Your task to perform on an android device: add a label to a message in the gmail app Image 0: 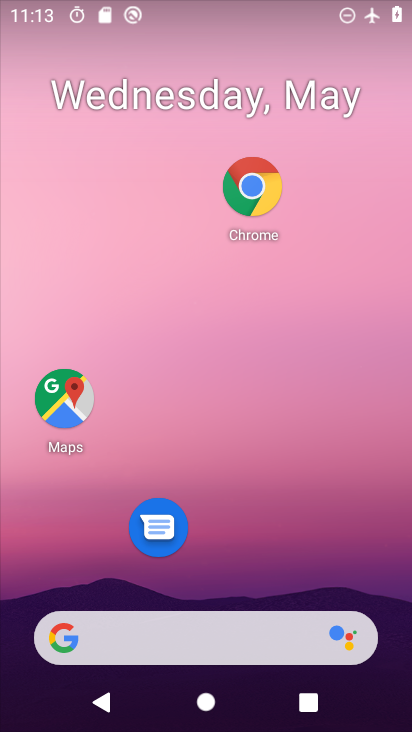
Step 0: drag from (283, 617) to (311, 221)
Your task to perform on an android device: add a label to a message in the gmail app Image 1: 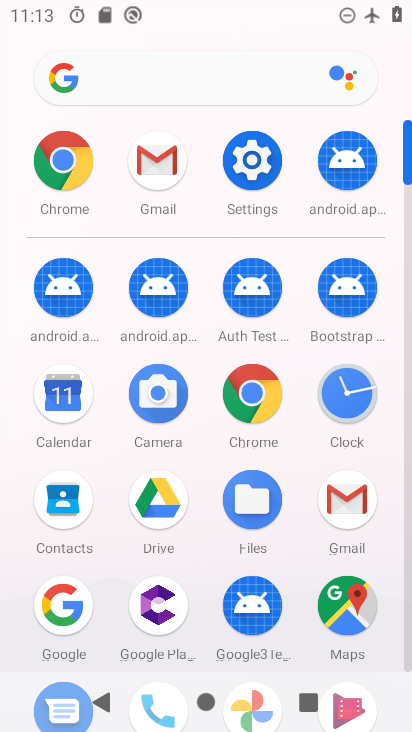
Step 1: click (354, 490)
Your task to perform on an android device: add a label to a message in the gmail app Image 2: 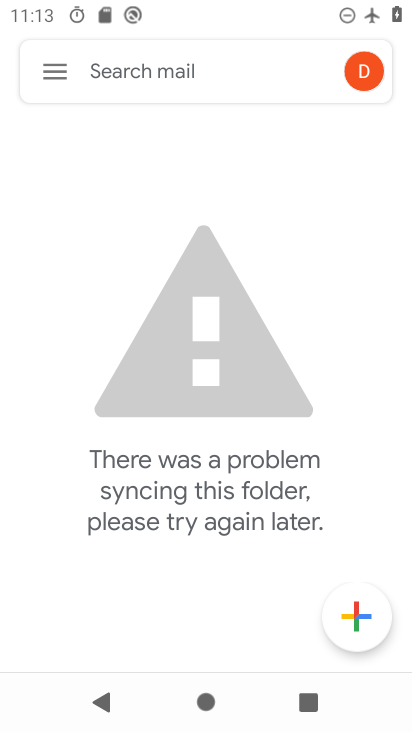
Step 2: click (57, 82)
Your task to perform on an android device: add a label to a message in the gmail app Image 3: 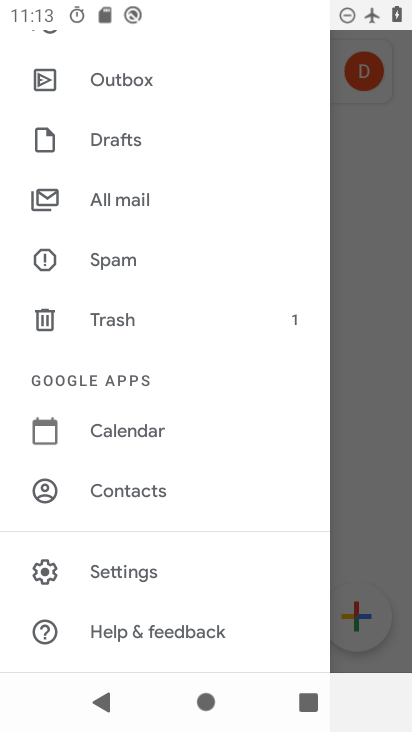
Step 3: click (143, 195)
Your task to perform on an android device: add a label to a message in the gmail app Image 4: 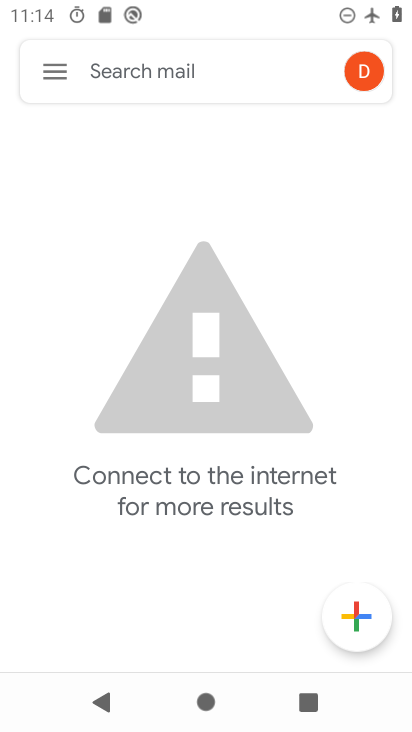
Step 4: click (69, 89)
Your task to perform on an android device: add a label to a message in the gmail app Image 5: 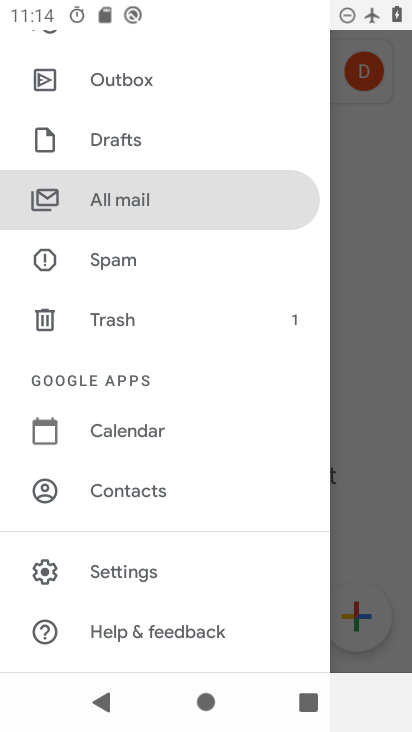
Step 5: click (123, 201)
Your task to perform on an android device: add a label to a message in the gmail app Image 6: 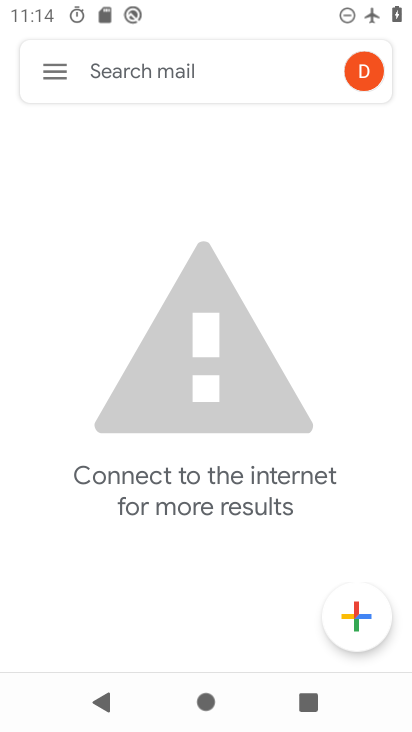
Step 6: task complete